Your task to perform on an android device: turn on translation in the chrome app Image 0: 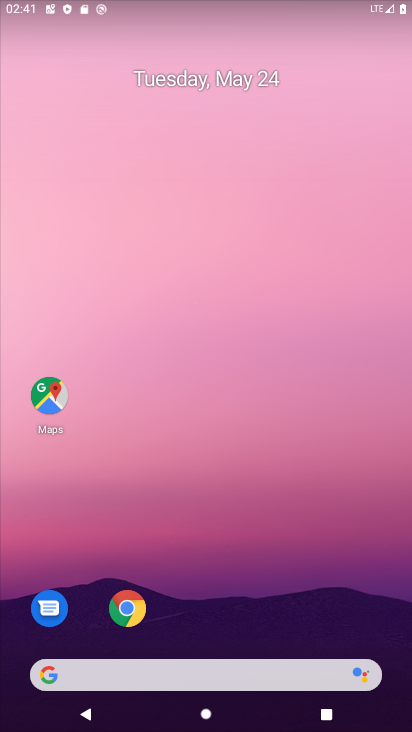
Step 0: drag from (216, 631) to (212, 224)
Your task to perform on an android device: turn on translation in the chrome app Image 1: 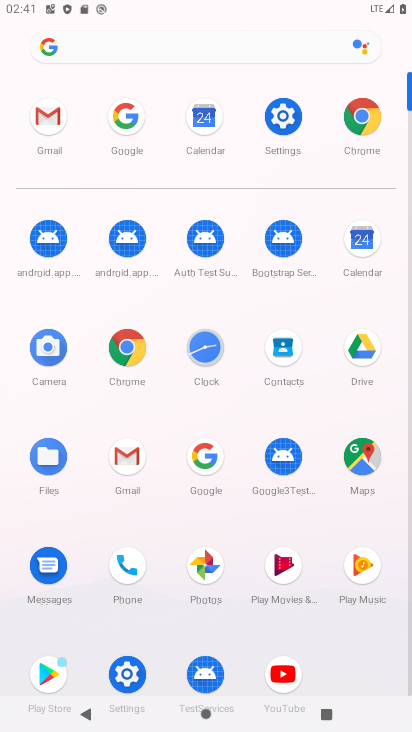
Step 1: click (357, 116)
Your task to perform on an android device: turn on translation in the chrome app Image 2: 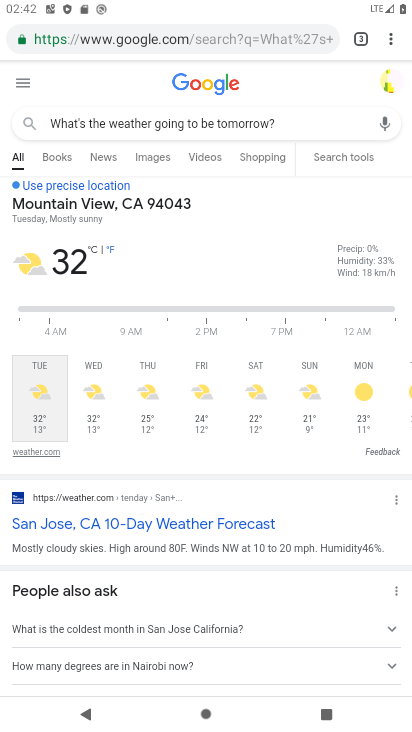
Step 2: click (394, 53)
Your task to perform on an android device: turn on translation in the chrome app Image 3: 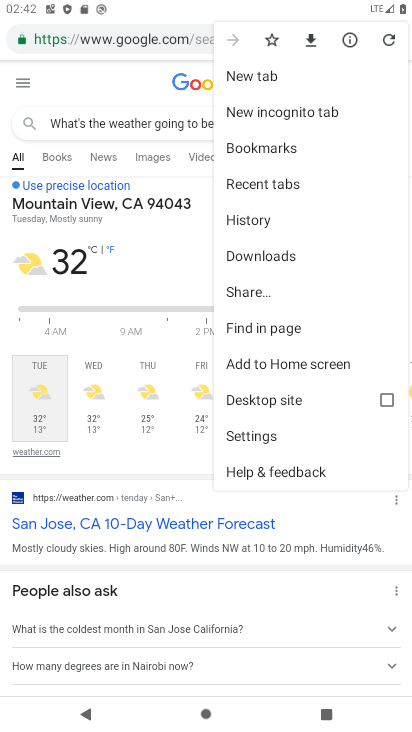
Step 3: click (281, 434)
Your task to perform on an android device: turn on translation in the chrome app Image 4: 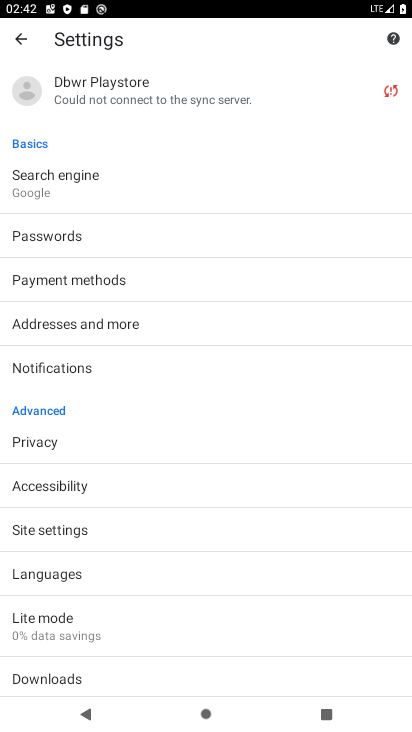
Step 4: click (104, 562)
Your task to perform on an android device: turn on translation in the chrome app Image 5: 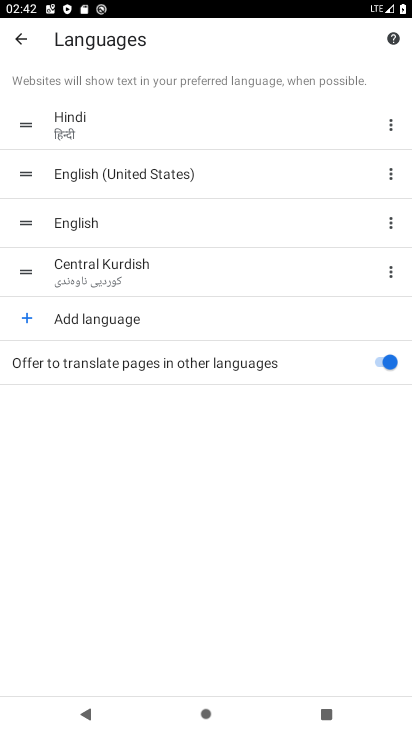
Step 5: task complete